Your task to perform on an android device: Go to Yahoo.com Image 0: 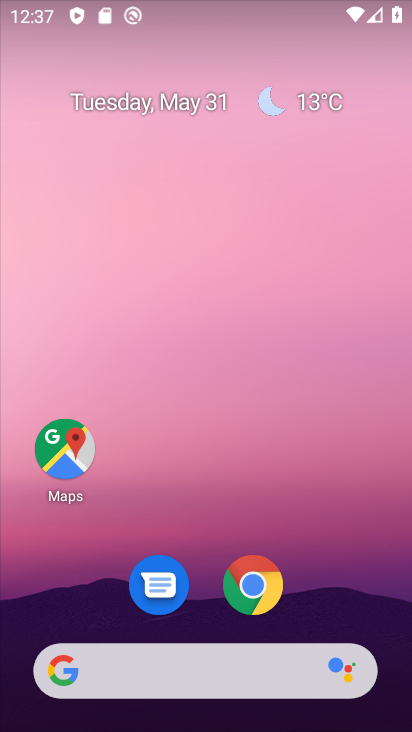
Step 0: click (238, 687)
Your task to perform on an android device: Go to Yahoo.com Image 1: 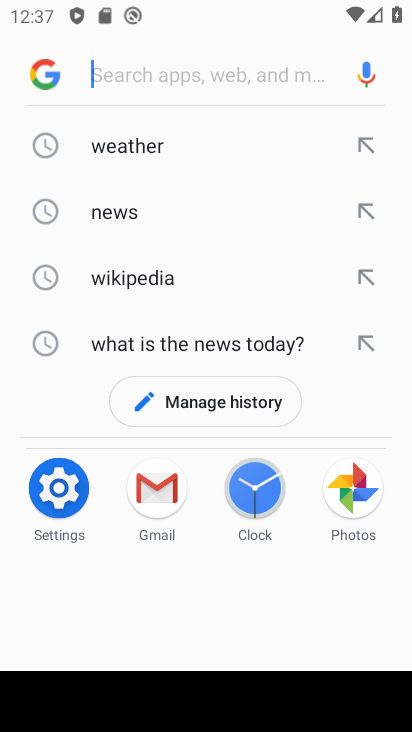
Step 1: type "yahoo.com"
Your task to perform on an android device: Go to Yahoo.com Image 2: 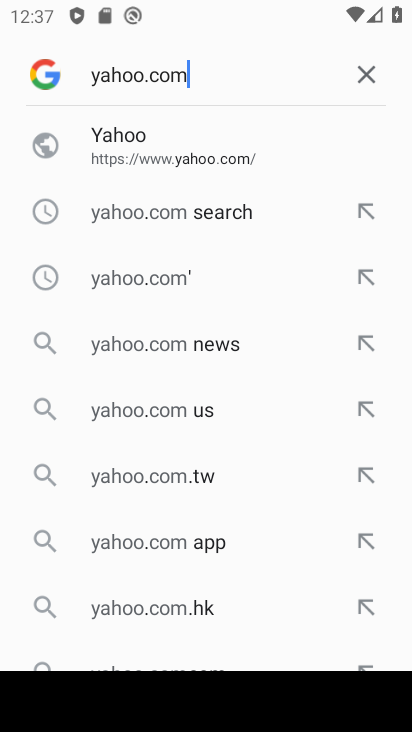
Step 2: click (176, 160)
Your task to perform on an android device: Go to Yahoo.com Image 3: 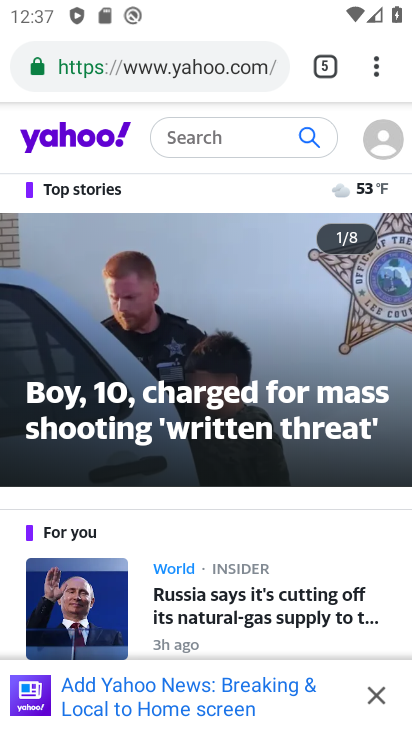
Step 3: task complete